Your task to perform on an android device: toggle sleep mode Image 0: 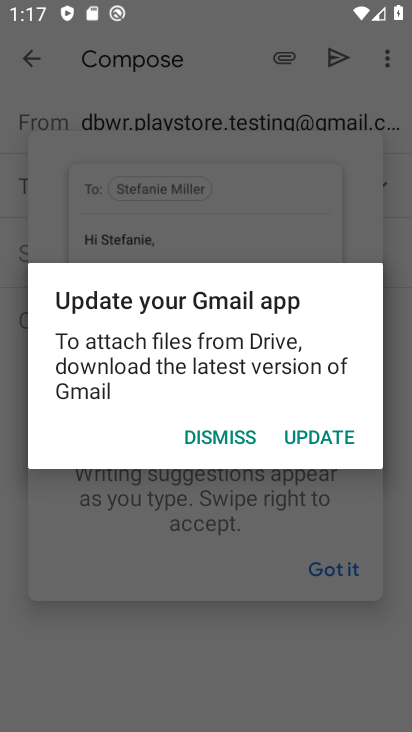
Step 0: press home button
Your task to perform on an android device: toggle sleep mode Image 1: 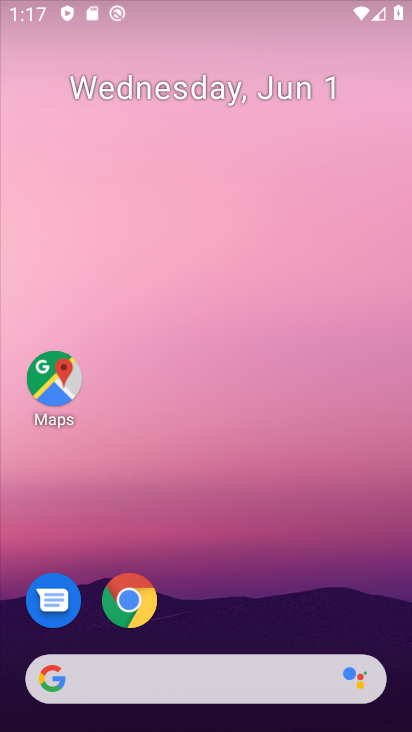
Step 1: drag from (181, 661) to (321, 176)
Your task to perform on an android device: toggle sleep mode Image 2: 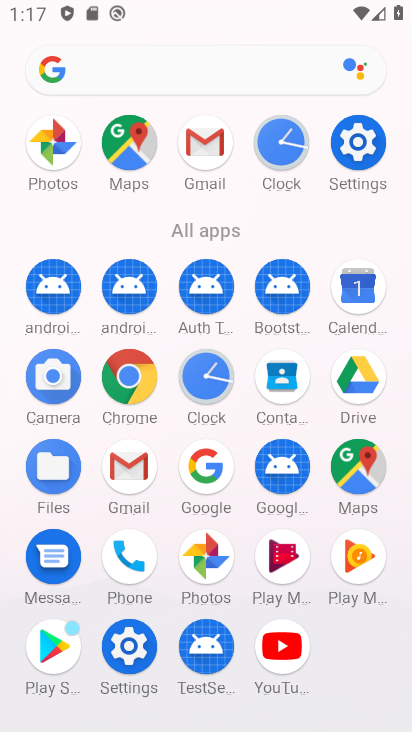
Step 2: click (137, 665)
Your task to perform on an android device: toggle sleep mode Image 3: 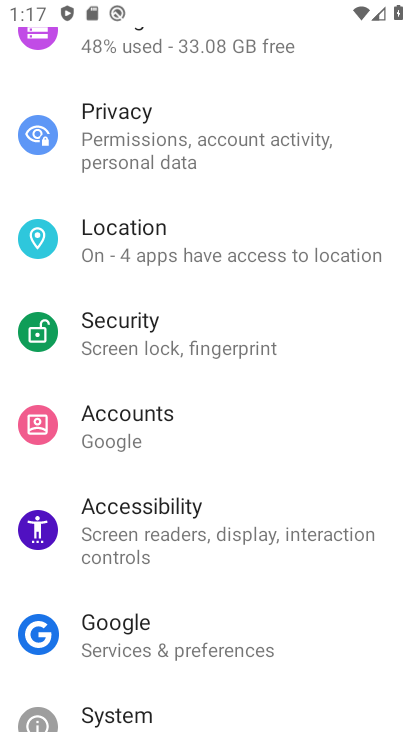
Step 3: drag from (245, 315) to (247, 600)
Your task to perform on an android device: toggle sleep mode Image 4: 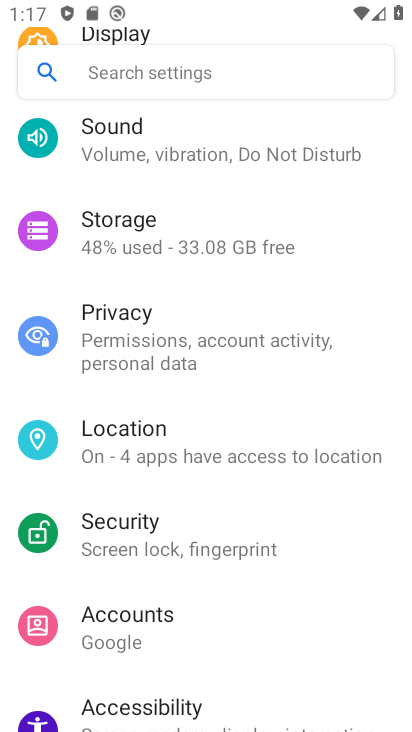
Step 4: drag from (237, 281) to (235, 606)
Your task to perform on an android device: toggle sleep mode Image 5: 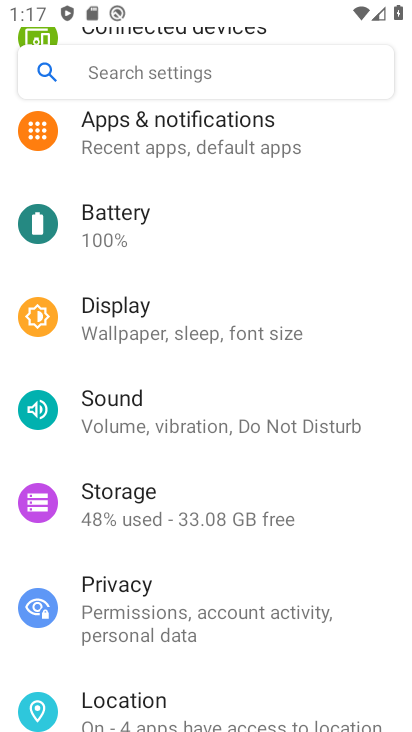
Step 5: click (192, 335)
Your task to perform on an android device: toggle sleep mode Image 6: 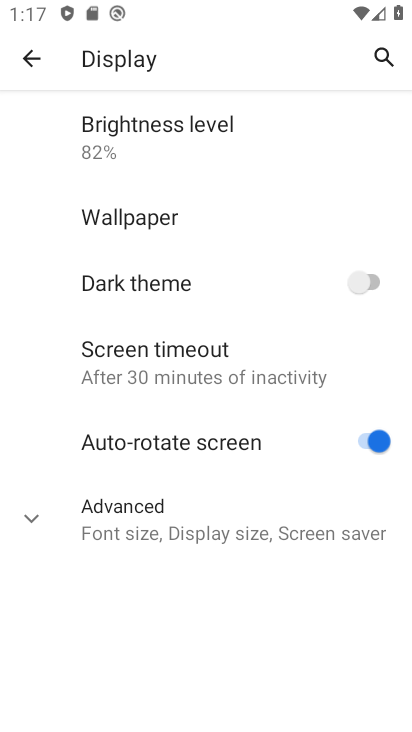
Step 6: click (198, 525)
Your task to perform on an android device: toggle sleep mode Image 7: 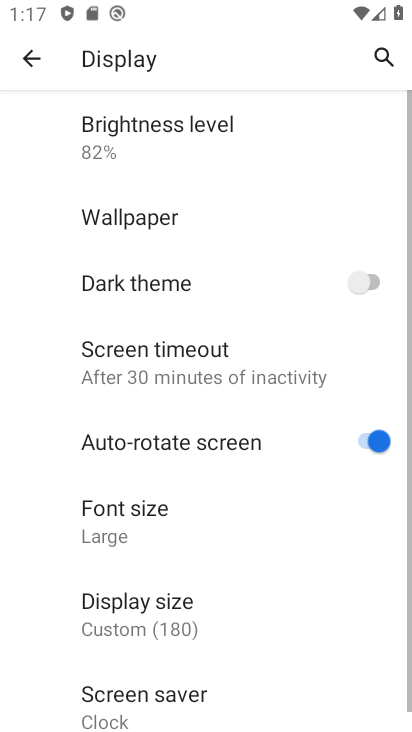
Step 7: task complete